Your task to perform on an android device: find snoozed emails in the gmail app Image 0: 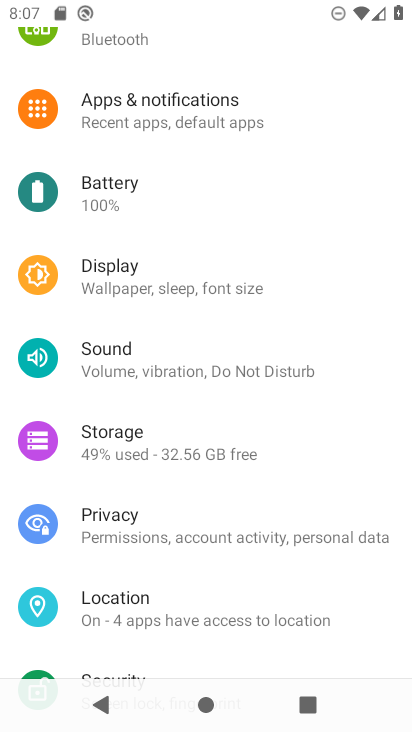
Step 0: press home button
Your task to perform on an android device: find snoozed emails in the gmail app Image 1: 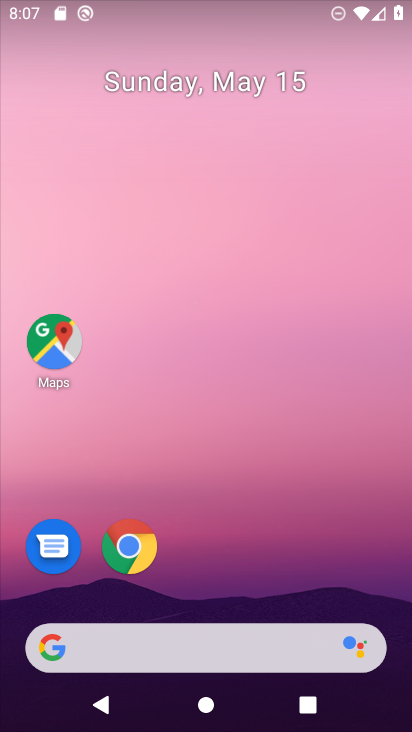
Step 1: drag from (226, 529) to (249, 44)
Your task to perform on an android device: find snoozed emails in the gmail app Image 2: 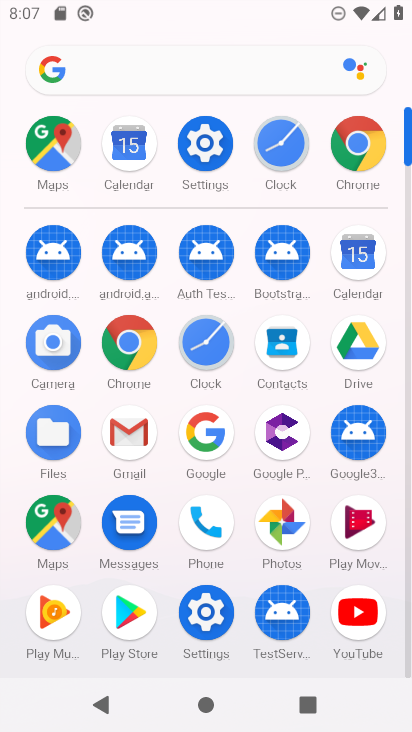
Step 2: click (129, 429)
Your task to perform on an android device: find snoozed emails in the gmail app Image 3: 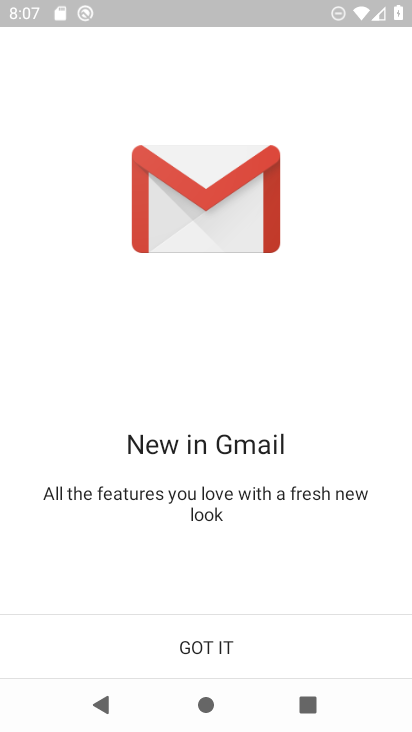
Step 3: click (230, 644)
Your task to perform on an android device: find snoozed emails in the gmail app Image 4: 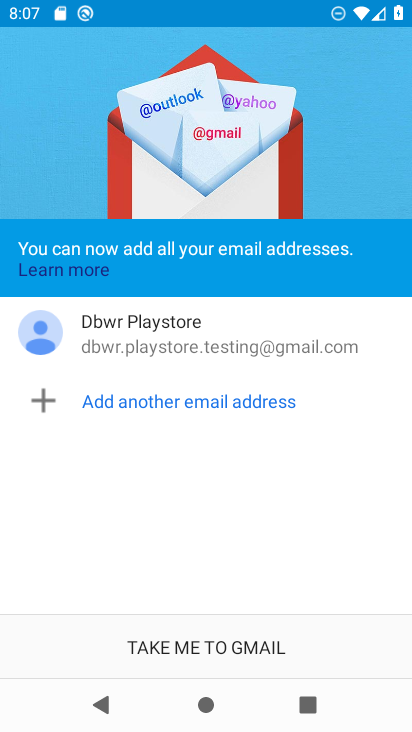
Step 4: click (230, 637)
Your task to perform on an android device: find snoozed emails in the gmail app Image 5: 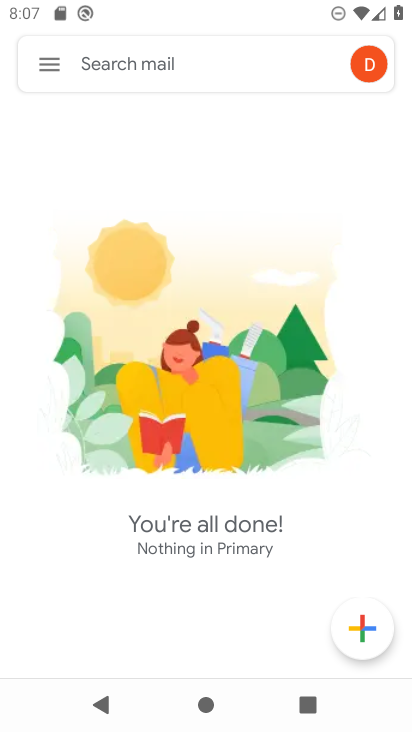
Step 5: click (44, 57)
Your task to perform on an android device: find snoozed emails in the gmail app Image 6: 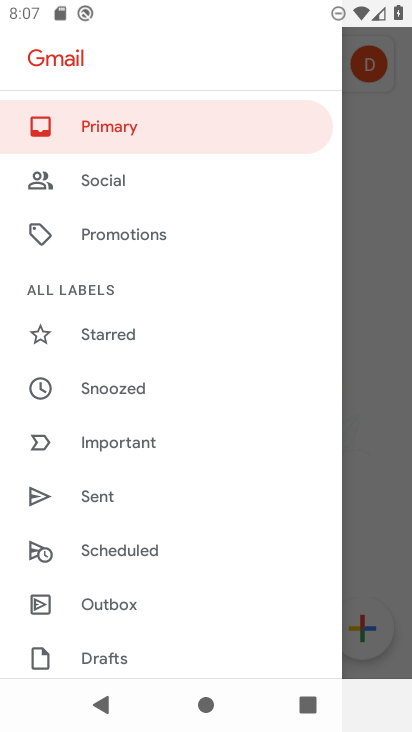
Step 6: click (132, 379)
Your task to perform on an android device: find snoozed emails in the gmail app Image 7: 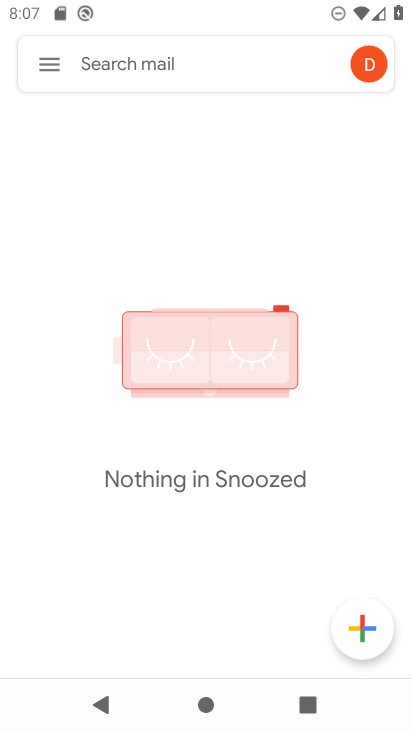
Step 7: task complete